Your task to perform on an android device: uninstall "Google Play services" Image 0: 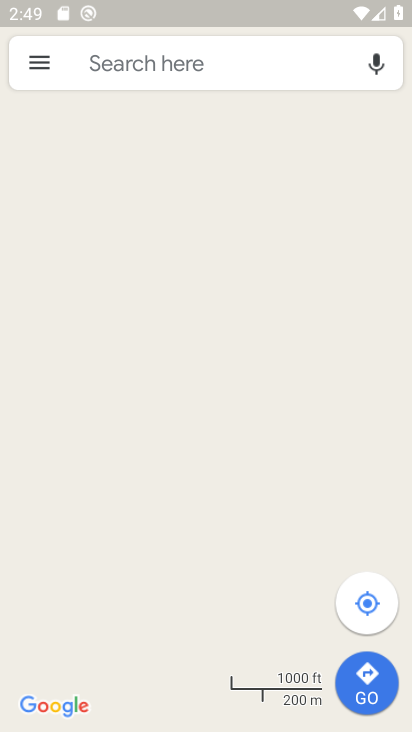
Step 0: press back button
Your task to perform on an android device: uninstall "Google Play services" Image 1: 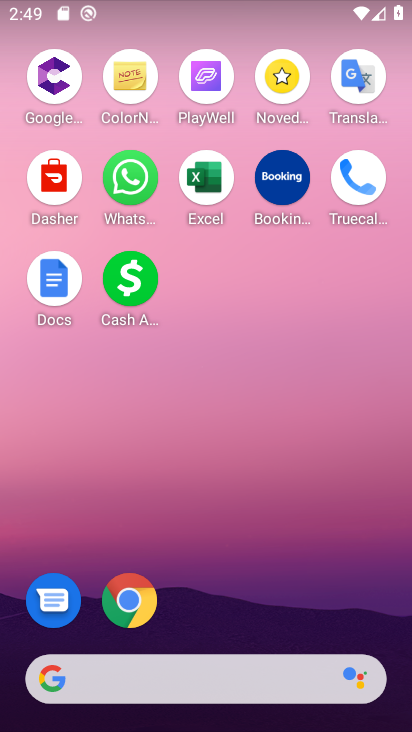
Step 1: press back button
Your task to perform on an android device: uninstall "Google Play services" Image 2: 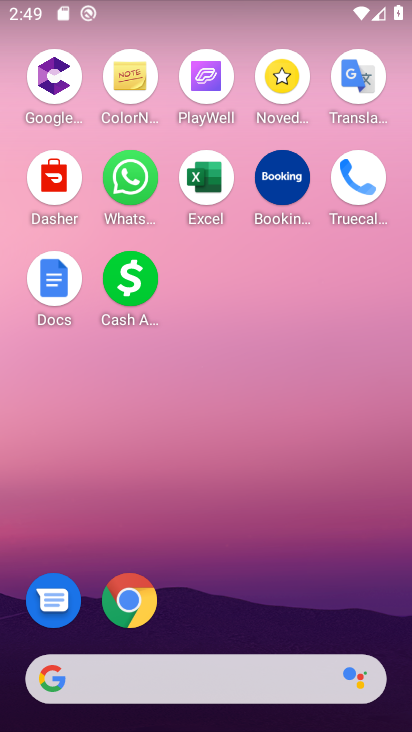
Step 2: drag from (213, 609) to (231, 75)
Your task to perform on an android device: uninstall "Google Play services" Image 3: 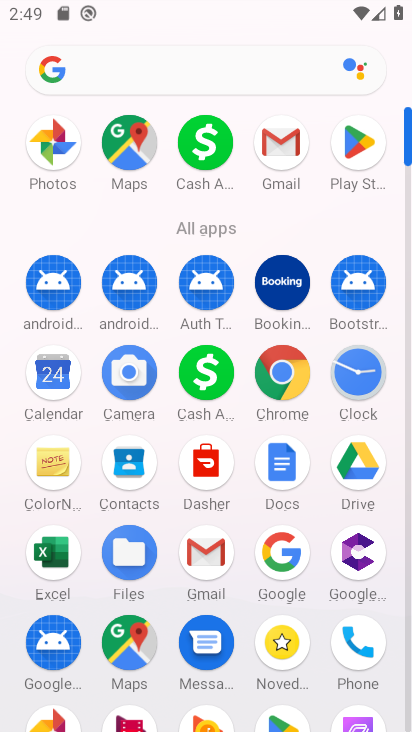
Step 3: click (355, 143)
Your task to perform on an android device: uninstall "Google Play services" Image 4: 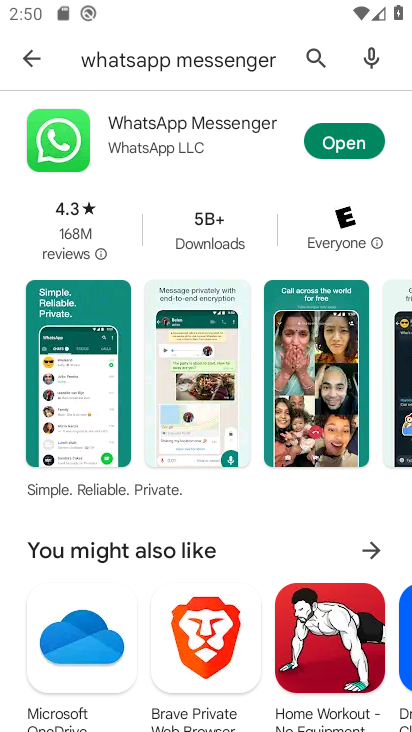
Step 4: click (310, 58)
Your task to perform on an android device: uninstall "Google Play services" Image 5: 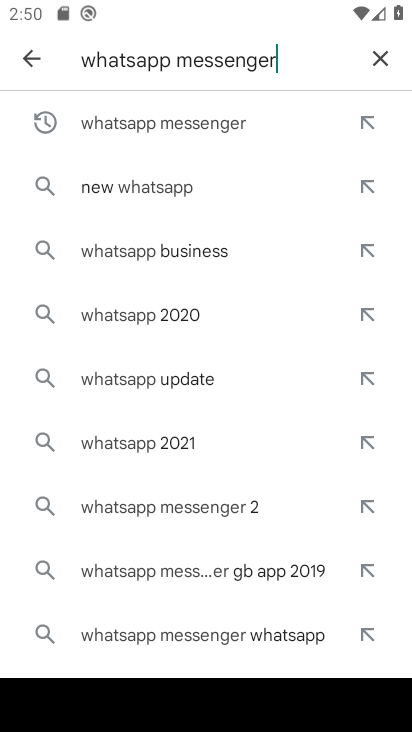
Step 5: click (381, 61)
Your task to perform on an android device: uninstall "Google Play services" Image 6: 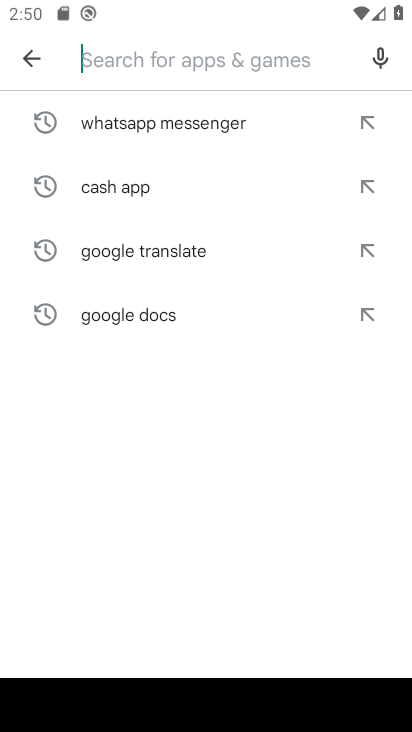
Step 6: click (99, 48)
Your task to perform on an android device: uninstall "Google Play services" Image 7: 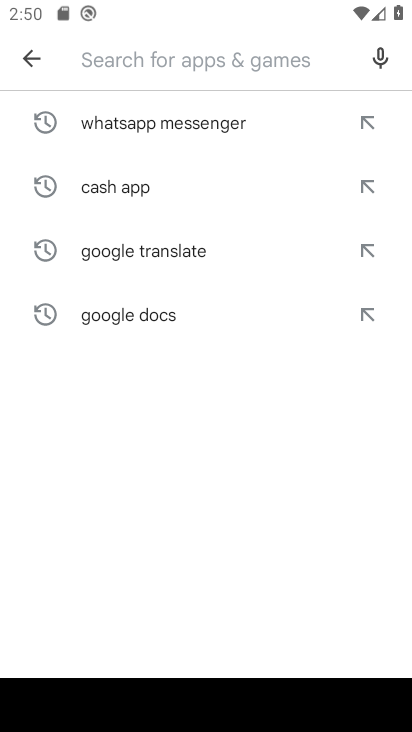
Step 7: type "Google Play services"
Your task to perform on an android device: uninstall "Google Play services" Image 8: 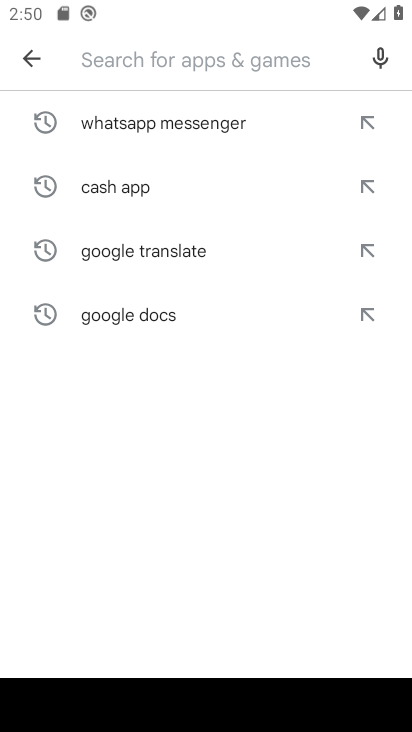
Step 8: click (229, 556)
Your task to perform on an android device: uninstall "Google Play services" Image 9: 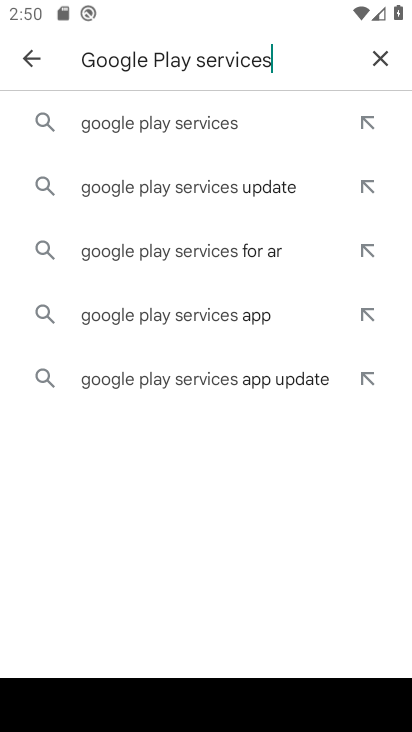
Step 9: click (177, 131)
Your task to perform on an android device: uninstall "Google Play services" Image 10: 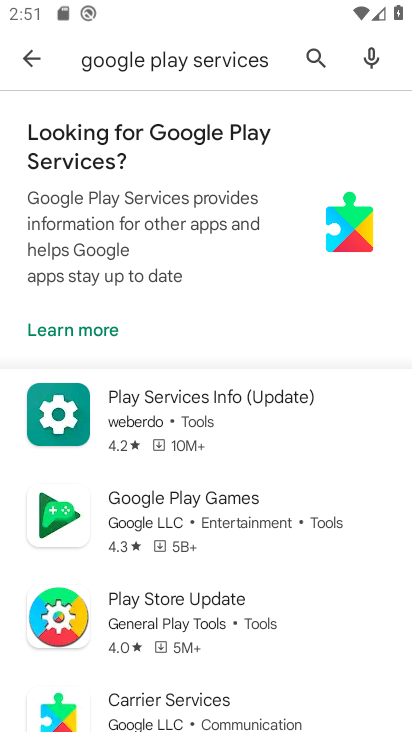
Step 10: task complete